Your task to perform on an android device: check data usage Image 0: 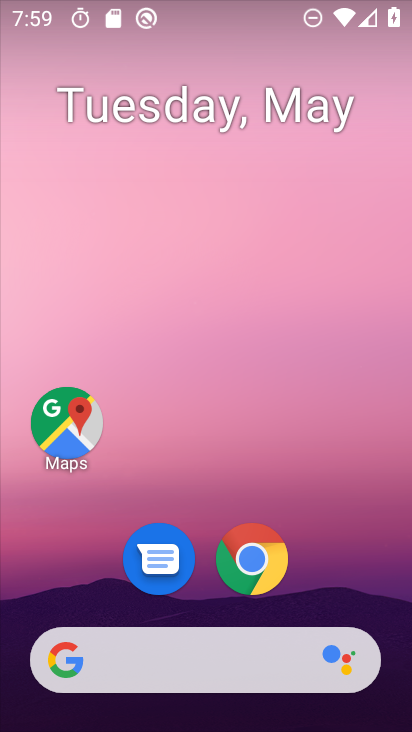
Step 0: drag from (392, 598) to (267, 50)
Your task to perform on an android device: check data usage Image 1: 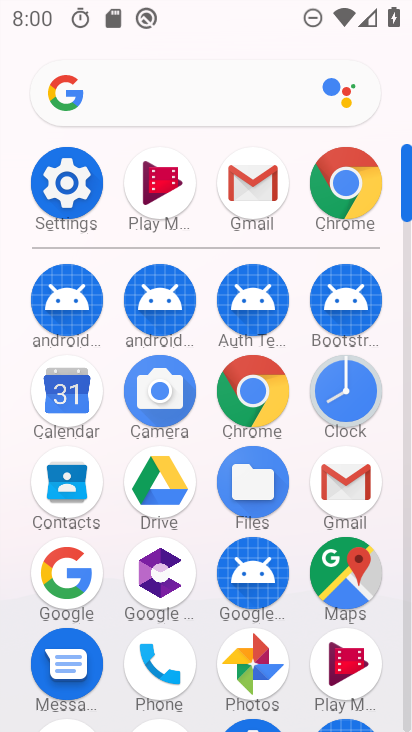
Step 1: click (46, 190)
Your task to perform on an android device: check data usage Image 2: 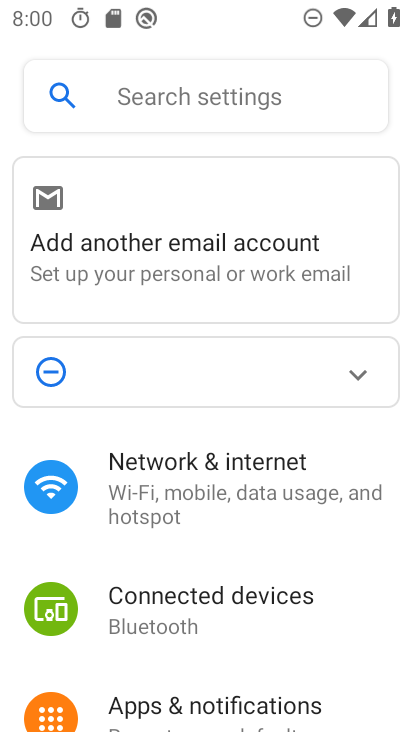
Step 2: drag from (246, 595) to (209, 7)
Your task to perform on an android device: check data usage Image 3: 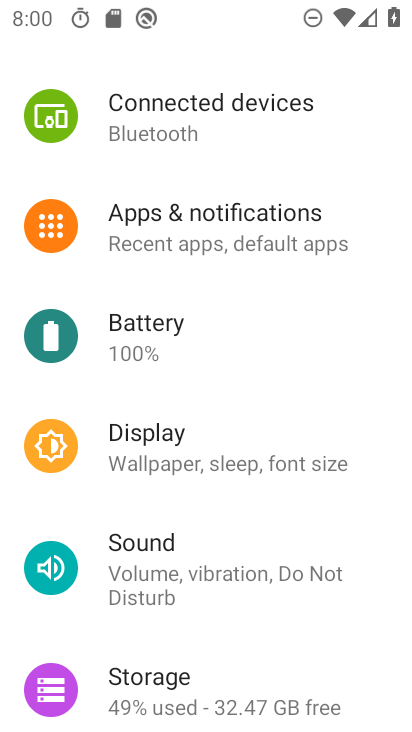
Step 3: drag from (194, 652) to (222, 270)
Your task to perform on an android device: check data usage Image 4: 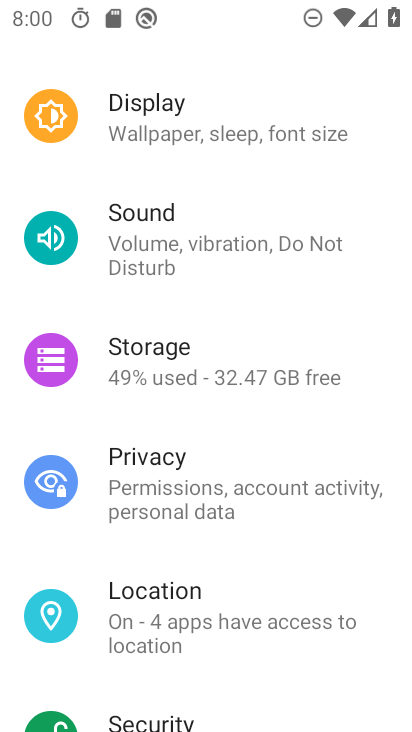
Step 4: drag from (162, 122) to (150, 538)
Your task to perform on an android device: check data usage Image 5: 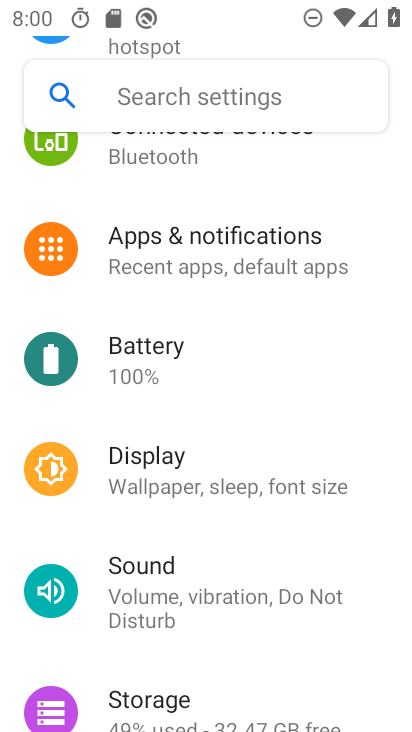
Step 5: click (177, 363)
Your task to perform on an android device: check data usage Image 6: 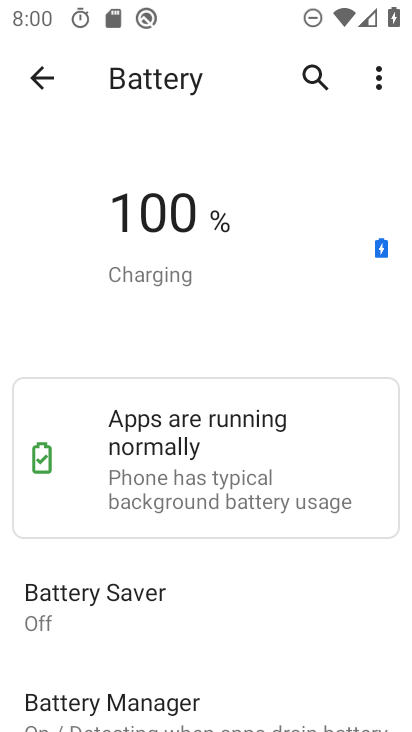
Step 6: click (372, 75)
Your task to perform on an android device: check data usage Image 7: 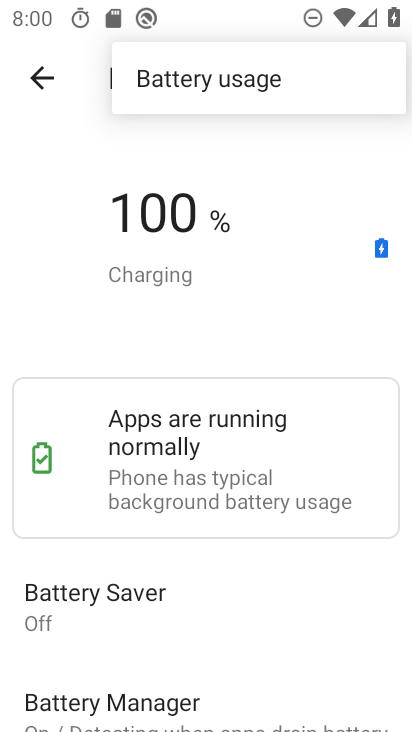
Step 7: click (242, 87)
Your task to perform on an android device: check data usage Image 8: 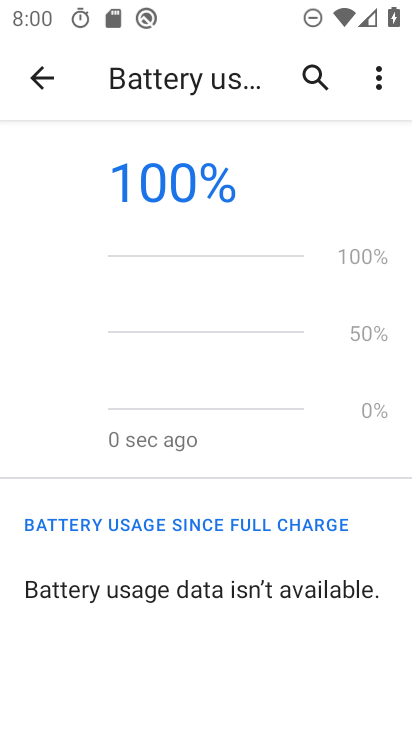
Step 8: task complete